Your task to perform on an android device: change the clock display to analog Image 0: 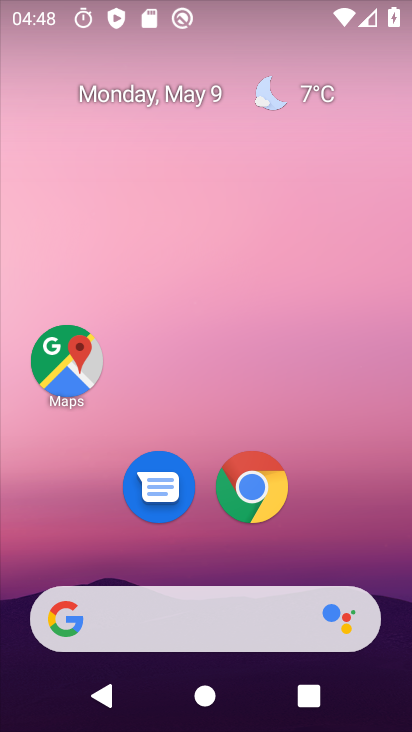
Step 0: drag from (195, 557) to (240, 25)
Your task to perform on an android device: change the clock display to analog Image 1: 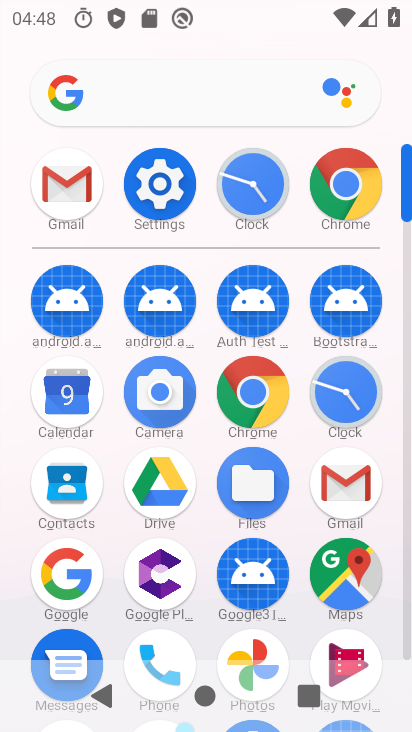
Step 1: click (345, 395)
Your task to perform on an android device: change the clock display to analog Image 2: 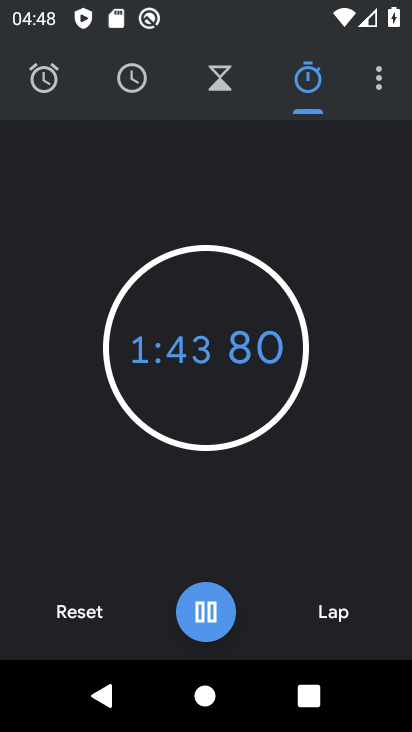
Step 2: click (381, 86)
Your task to perform on an android device: change the clock display to analog Image 3: 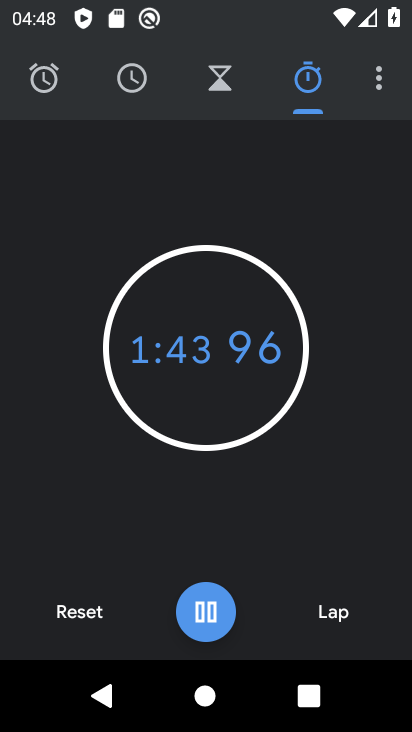
Step 3: click (381, 86)
Your task to perform on an android device: change the clock display to analog Image 4: 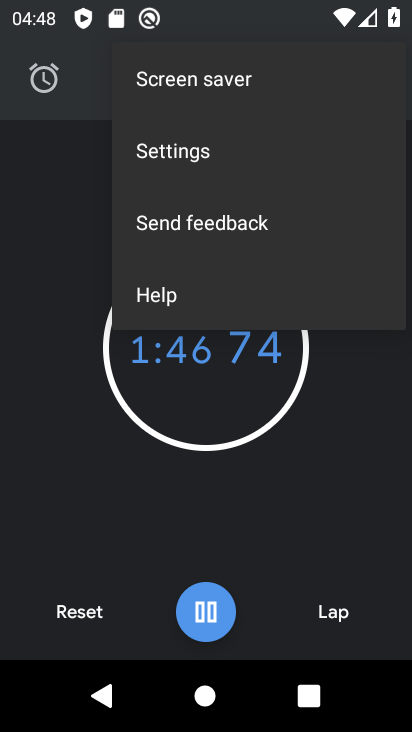
Step 4: click (200, 154)
Your task to perform on an android device: change the clock display to analog Image 5: 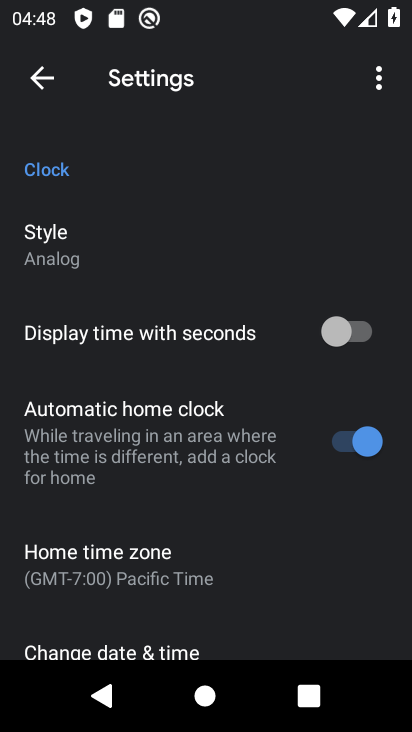
Step 5: click (85, 250)
Your task to perform on an android device: change the clock display to analog Image 6: 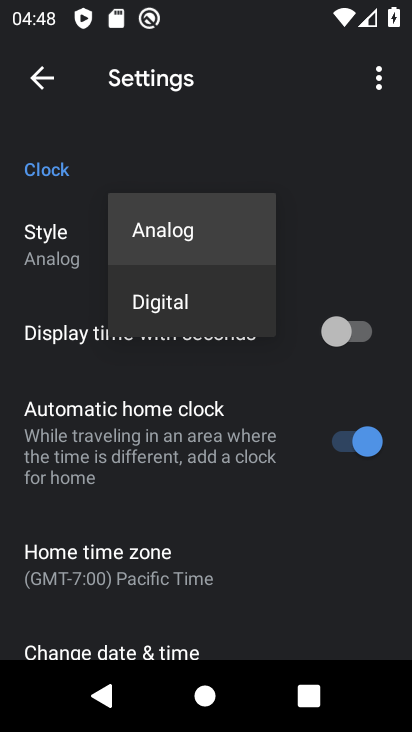
Step 6: task complete